Your task to perform on an android device: Open network settings Image 0: 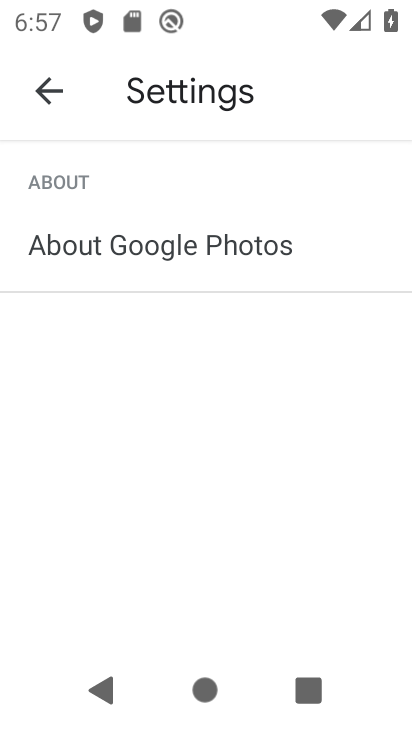
Step 0: press home button
Your task to perform on an android device: Open network settings Image 1: 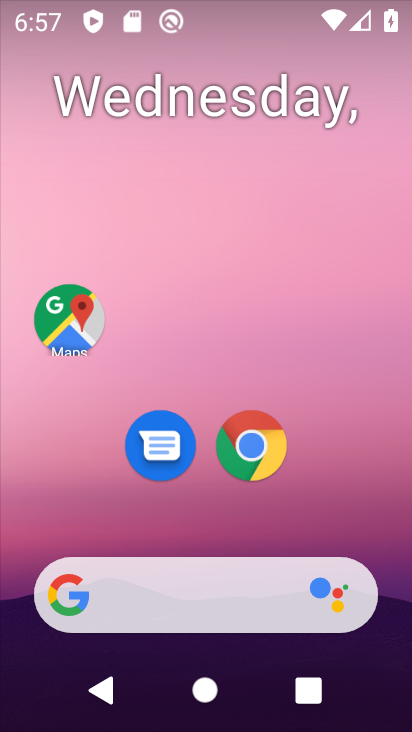
Step 1: drag from (342, 496) to (368, 1)
Your task to perform on an android device: Open network settings Image 2: 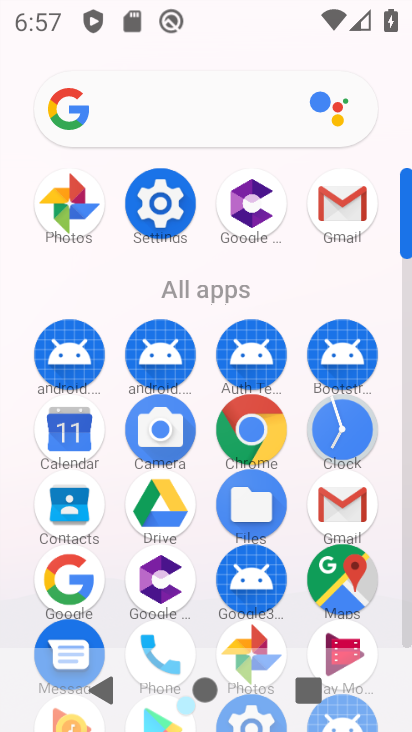
Step 2: click (157, 196)
Your task to perform on an android device: Open network settings Image 3: 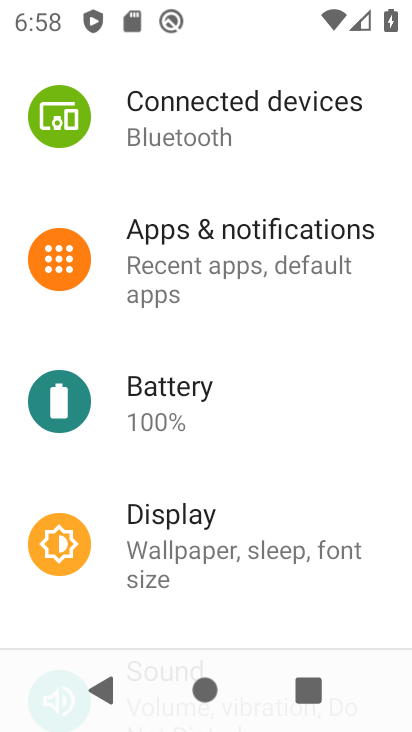
Step 3: click (226, 252)
Your task to perform on an android device: Open network settings Image 4: 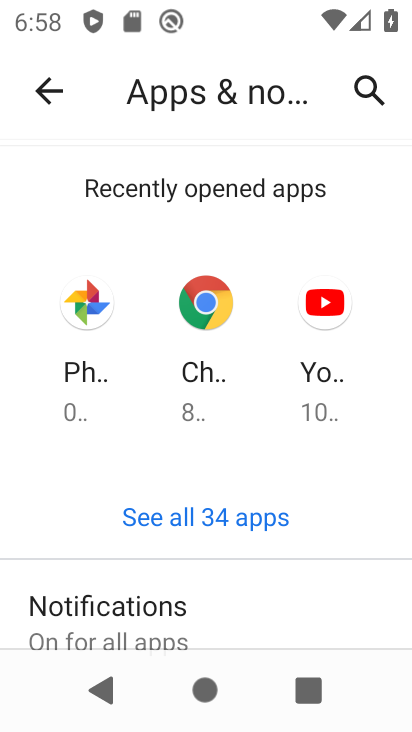
Step 4: click (52, 72)
Your task to perform on an android device: Open network settings Image 5: 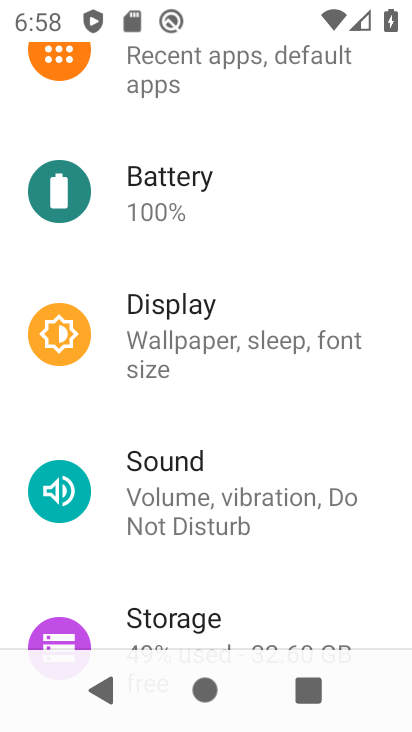
Step 5: click (52, 72)
Your task to perform on an android device: Open network settings Image 6: 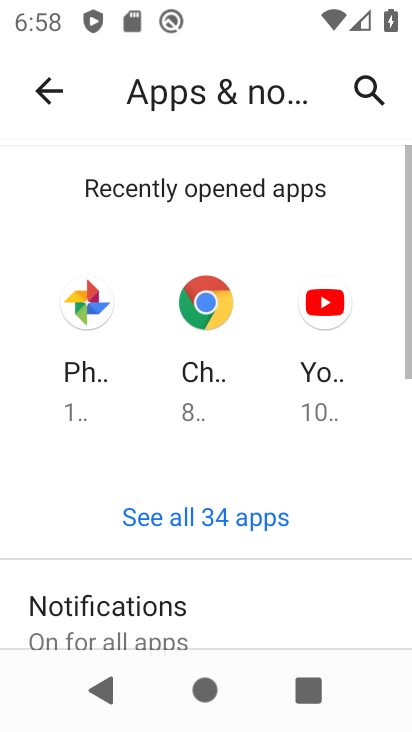
Step 6: click (43, 83)
Your task to perform on an android device: Open network settings Image 7: 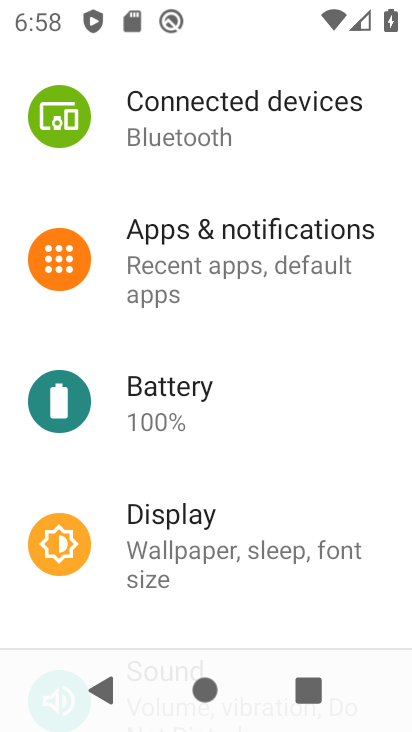
Step 7: drag from (173, 108) to (233, 551)
Your task to perform on an android device: Open network settings Image 8: 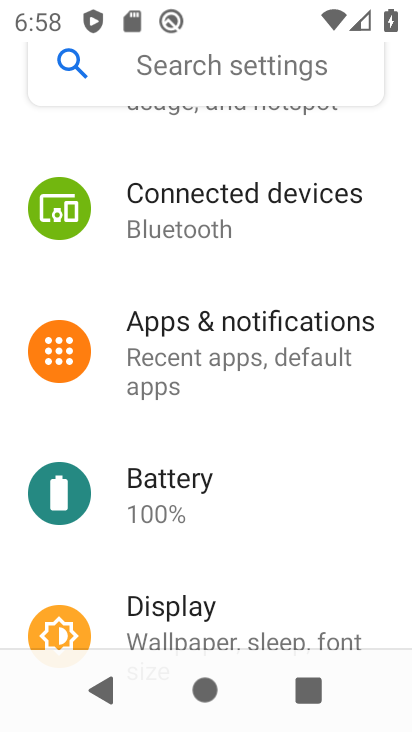
Step 8: drag from (283, 212) to (218, 603)
Your task to perform on an android device: Open network settings Image 9: 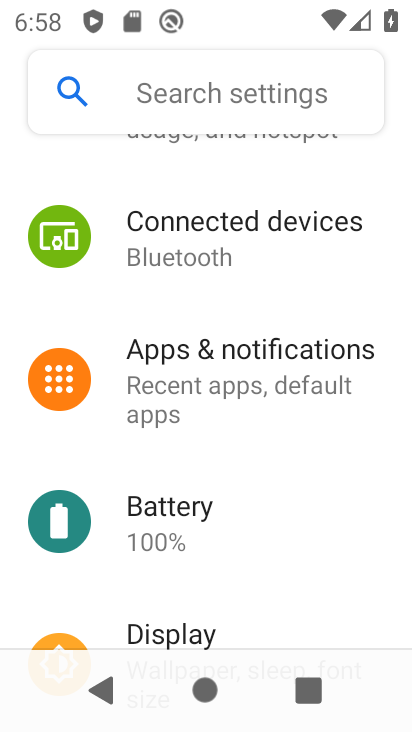
Step 9: drag from (268, 298) to (211, 558)
Your task to perform on an android device: Open network settings Image 10: 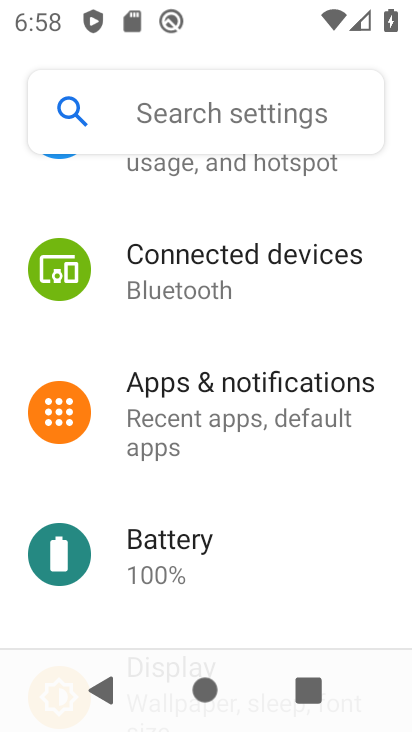
Step 10: drag from (253, 253) to (155, 600)
Your task to perform on an android device: Open network settings Image 11: 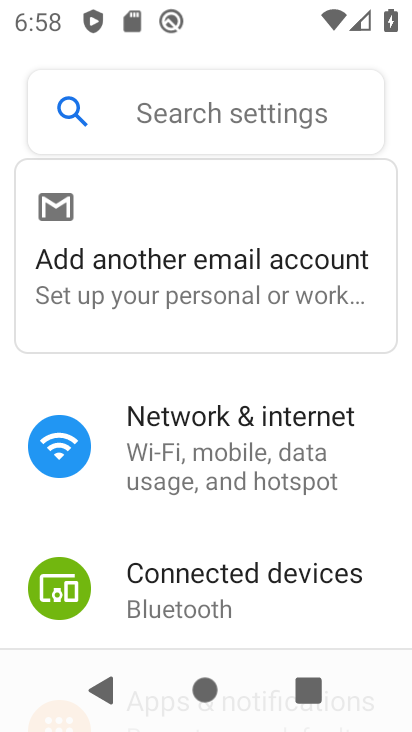
Step 11: drag from (169, 291) to (129, 671)
Your task to perform on an android device: Open network settings Image 12: 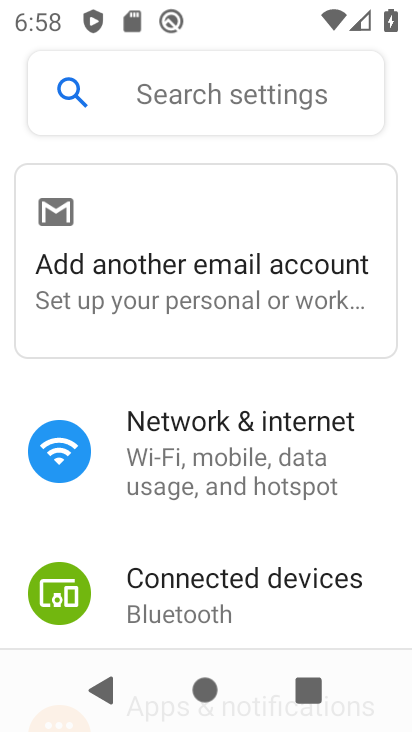
Step 12: click (202, 451)
Your task to perform on an android device: Open network settings Image 13: 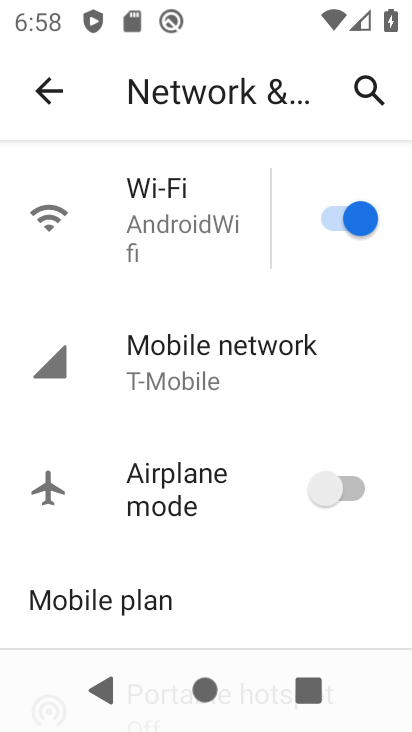
Step 13: task complete